Your task to perform on an android device: Open sound settings Image 0: 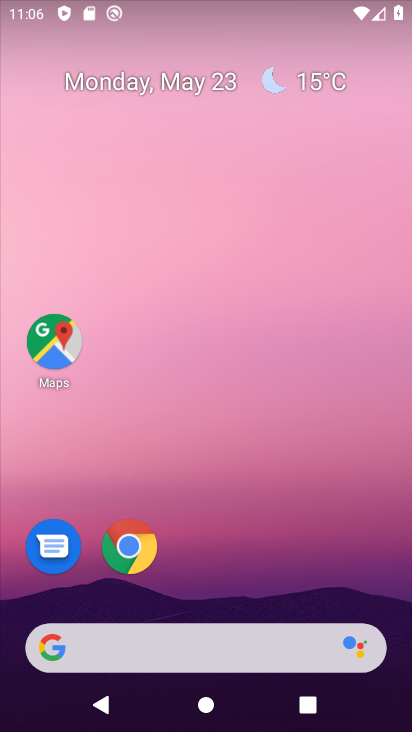
Step 0: drag from (182, 605) to (252, 181)
Your task to perform on an android device: Open sound settings Image 1: 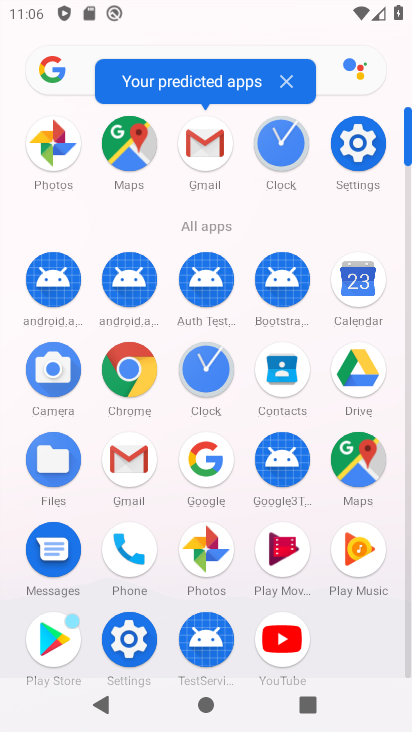
Step 1: click (370, 151)
Your task to perform on an android device: Open sound settings Image 2: 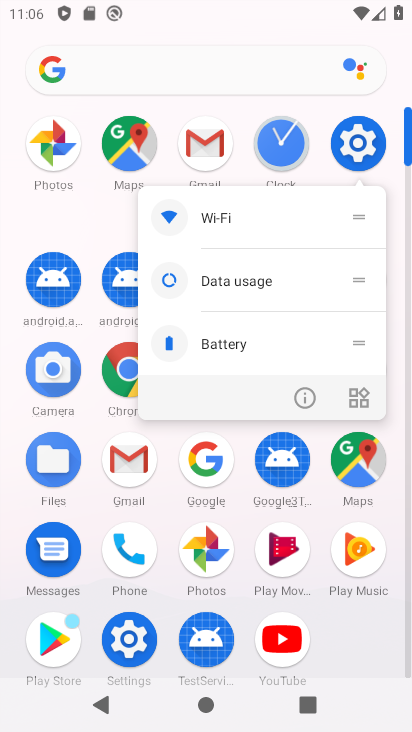
Step 2: click (303, 394)
Your task to perform on an android device: Open sound settings Image 3: 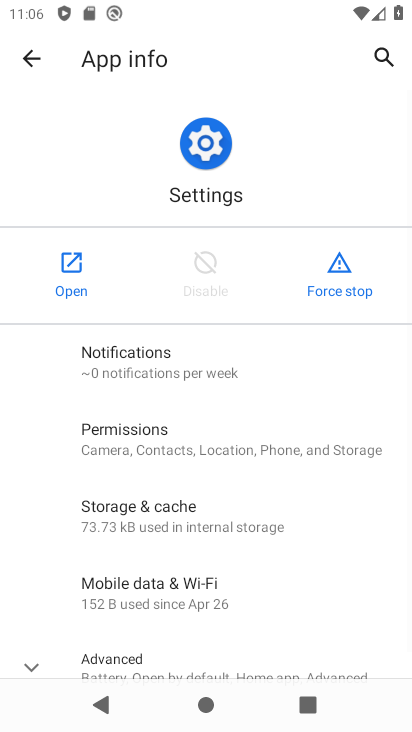
Step 3: click (66, 257)
Your task to perform on an android device: Open sound settings Image 4: 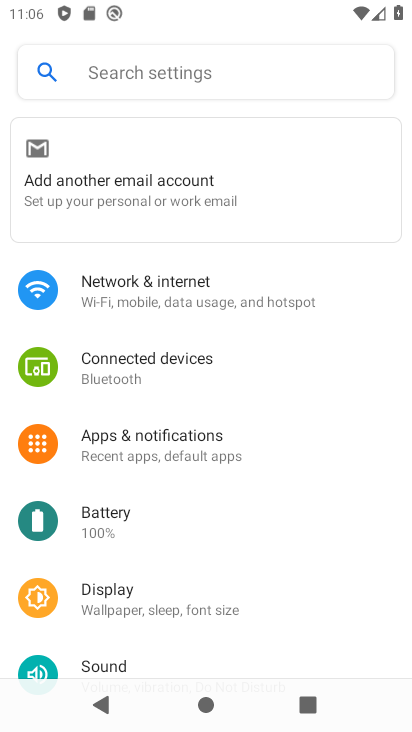
Step 4: drag from (175, 591) to (252, 161)
Your task to perform on an android device: Open sound settings Image 5: 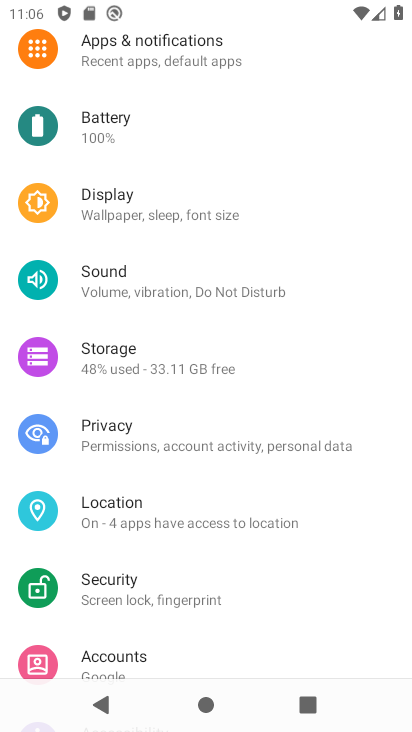
Step 5: click (123, 281)
Your task to perform on an android device: Open sound settings Image 6: 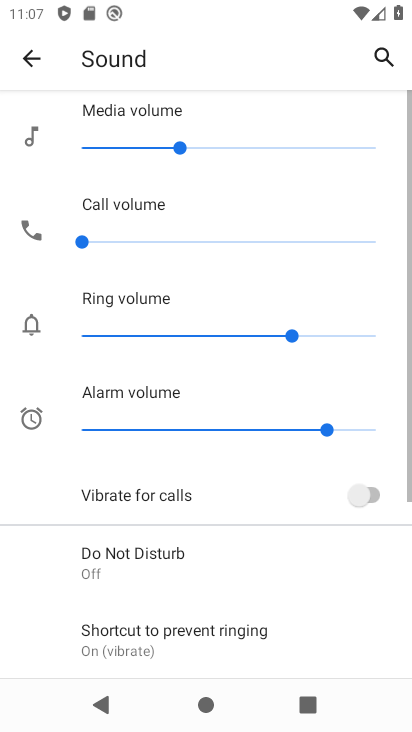
Step 6: task complete